Your task to perform on an android device: visit the assistant section in the google photos Image 0: 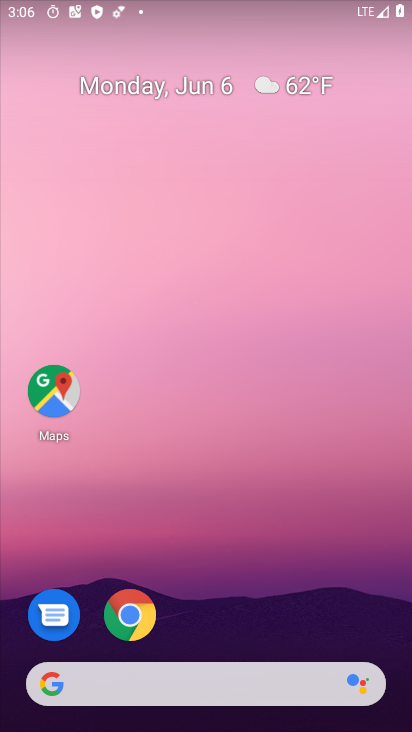
Step 0: drag from (325, 644) to (403, 447)
Your task to perform on an android device: visit the assistant section in the google photos Image 1: 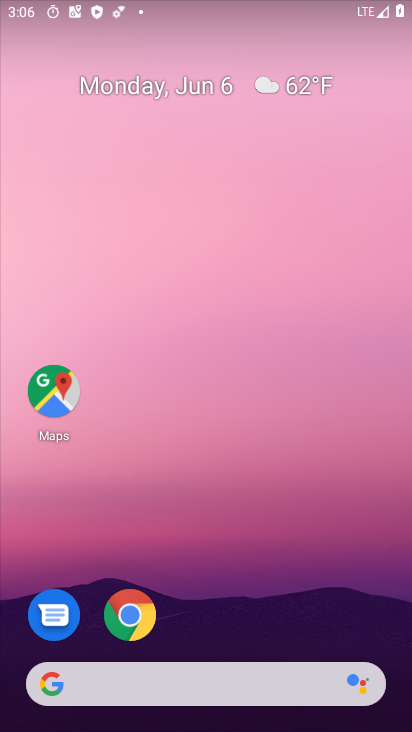
Step 1: drag from (220, 681) to (404, 2)
Your task to perform on an android device: visit the assistant section in the google photos Image 2: 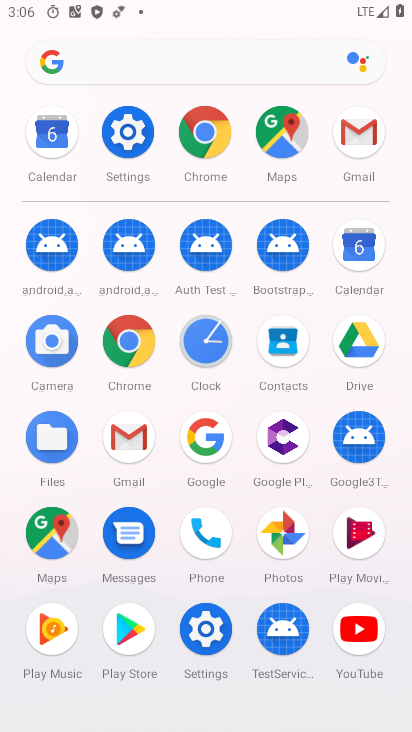
Step 2: click (280, 526)
Your task to perform on an android device: visit the assistant section in the google photos Image 3: 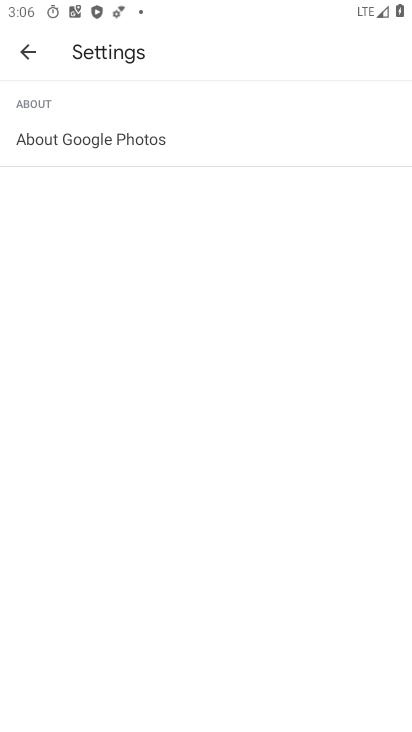
Step 3: press back button
Your task to perform on an android device: visit the assistant section in the google photos Image 4: 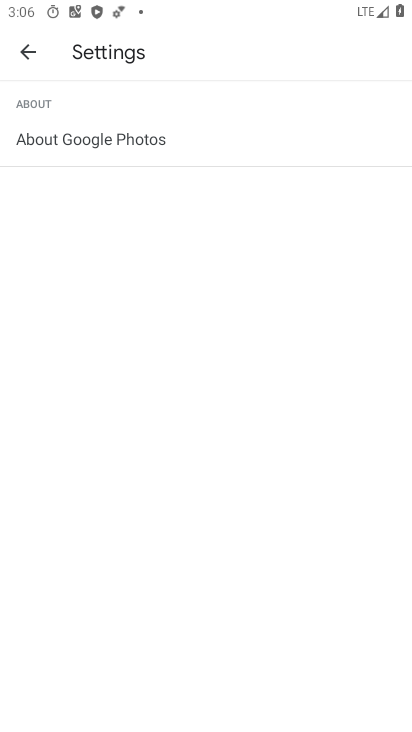
Step 4: press back button
Your task to perform on an android device: visit the assistant section in the google photos Image 5: 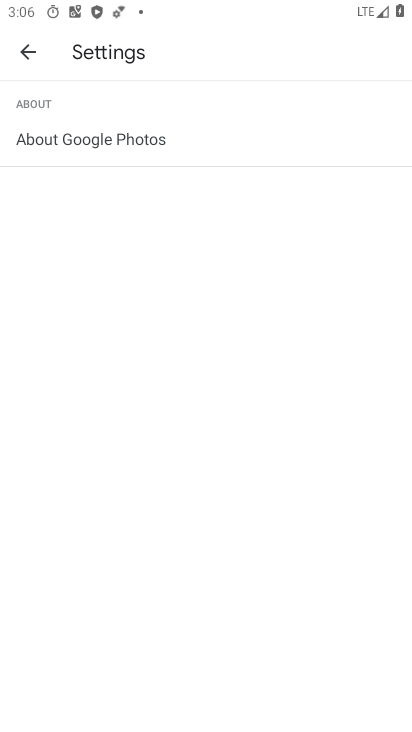
Step 5: press back button
Your task to perform on an android device: visit the assistant section in the google photos Image 6: 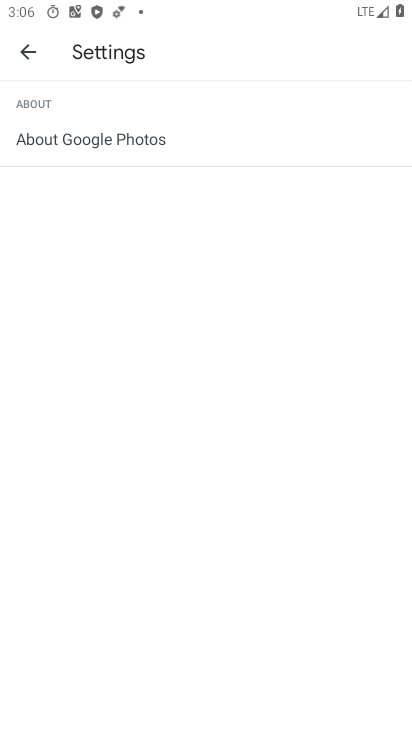
Step 6: press back button
Your task to perform on an android device: visit the assistant section in the google photos Image 7: 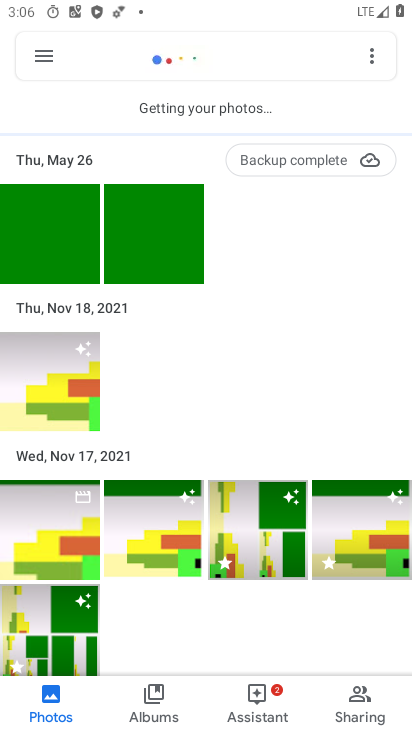
Step 7: click (263, 703)
Your task to perform on an android device: visit the assistant section in the google photos Image 8: 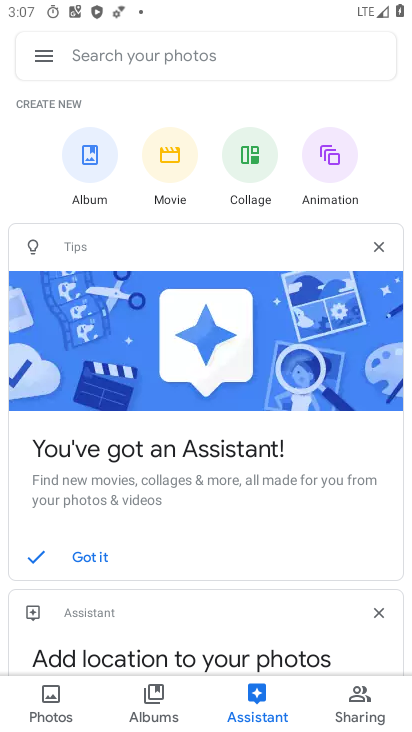
Step 8: task complete